Your task to perform on an android device: Empty the shopping cart on costco. Image 0: 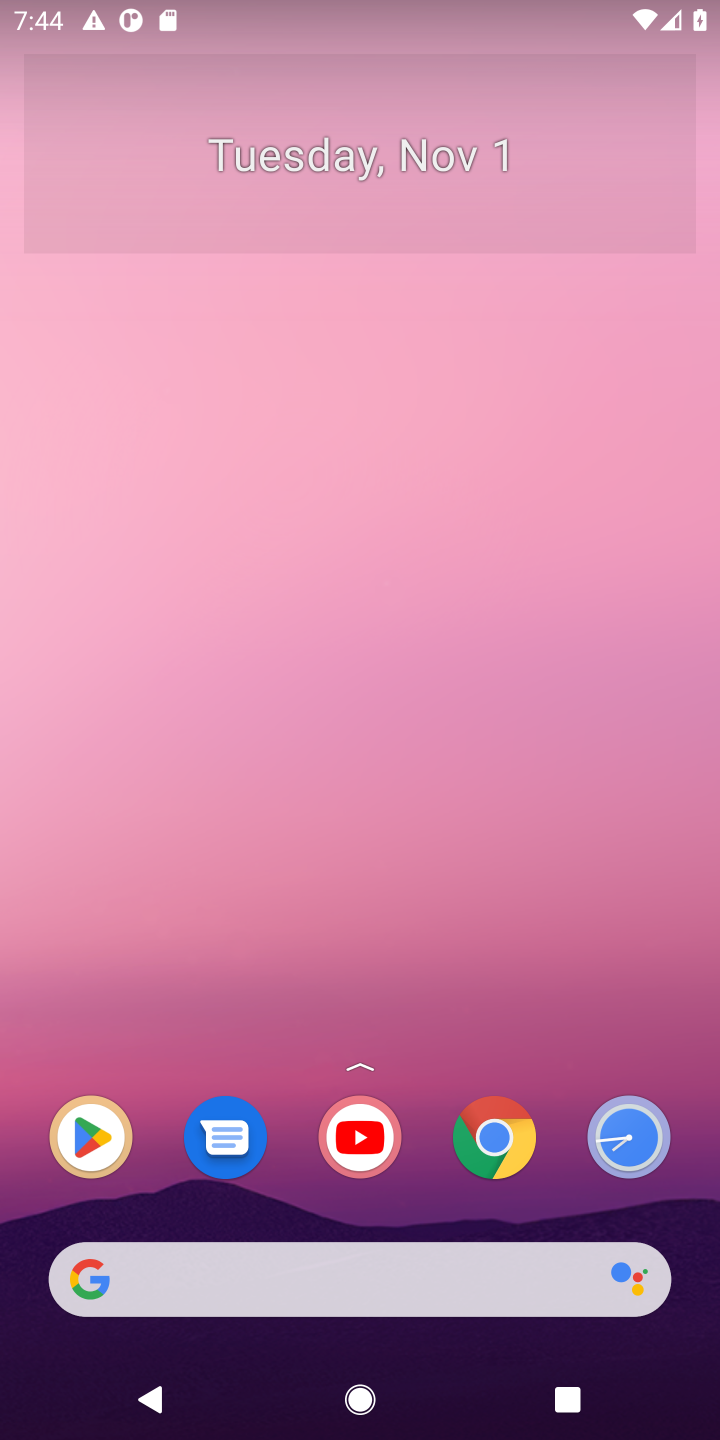
Step 0: click (517, 1138)
Your task to perform on an android device: Empty the shopping cart on costco. Image 1: 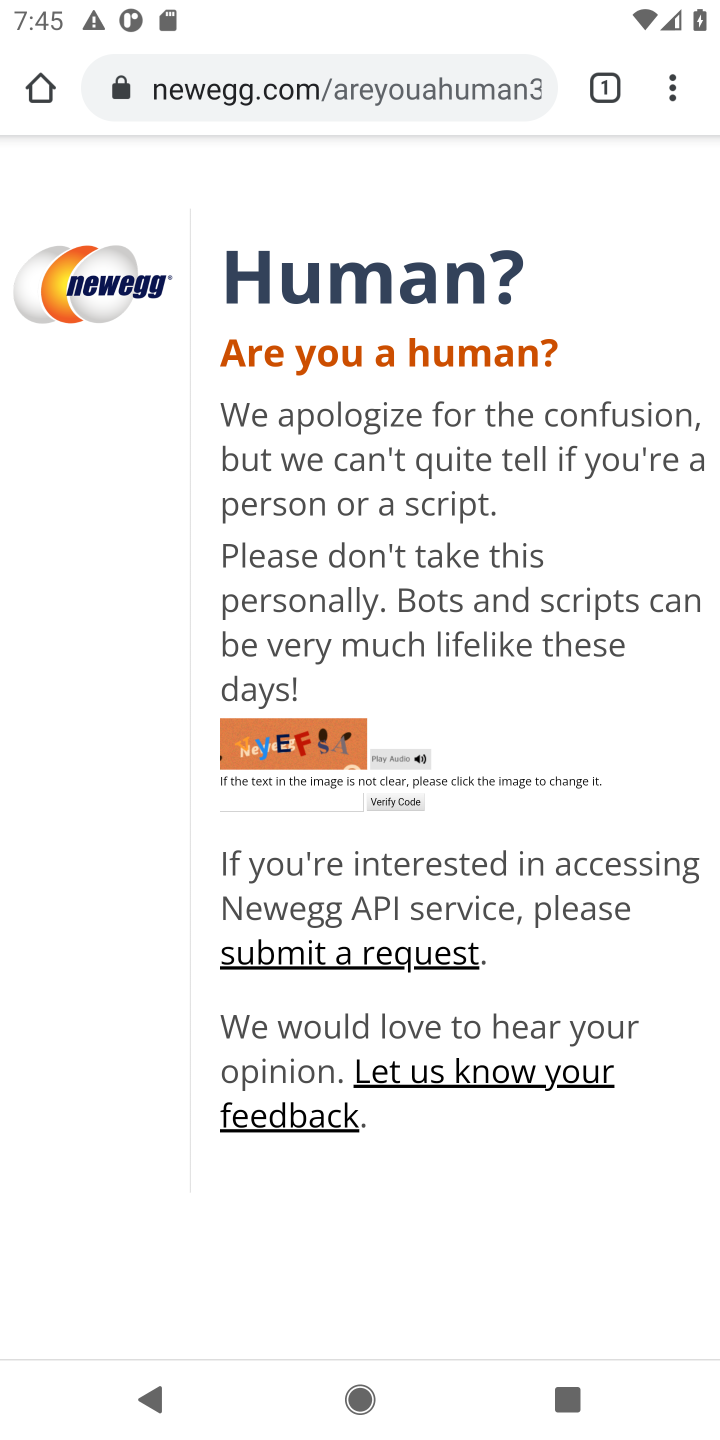
Step 1: click (412, 91)
Your task to perform on an android device: Empty the shopping cart on costco. Image 2: 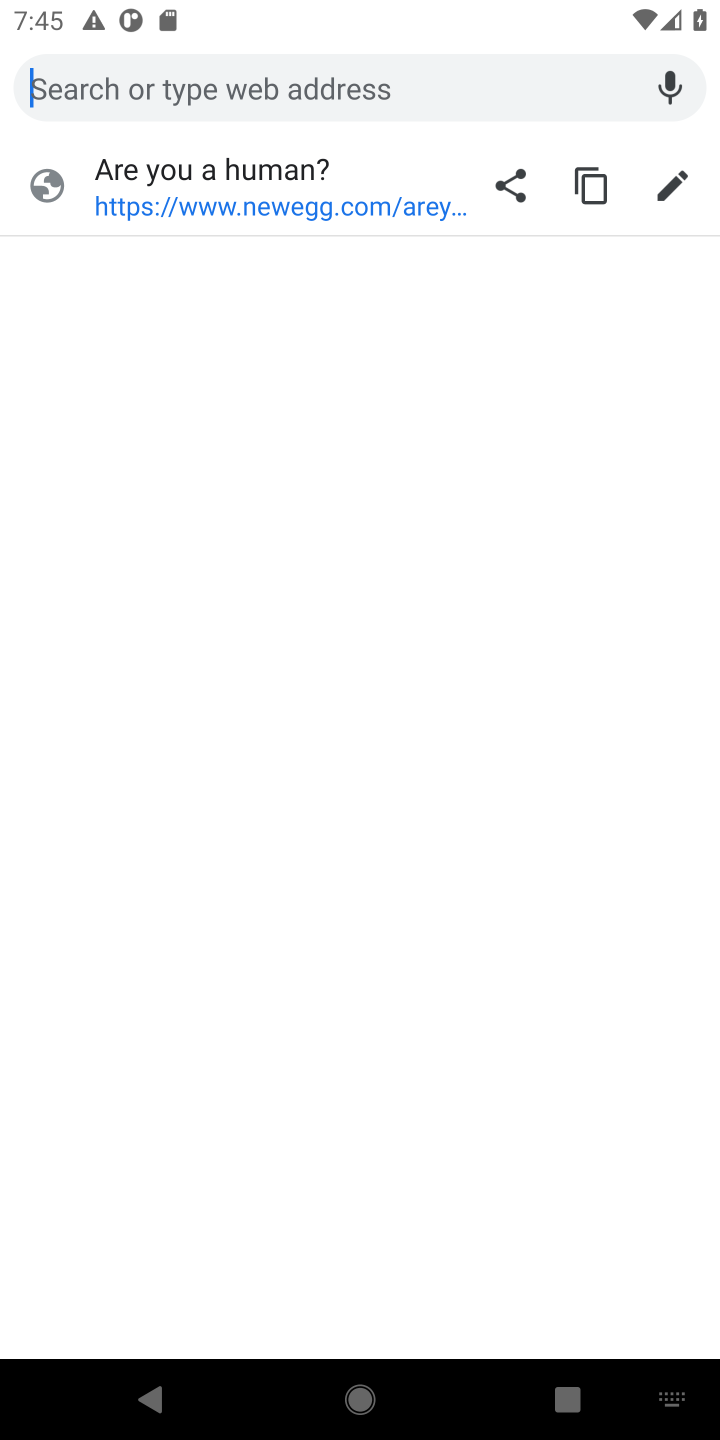
Step 2: type "costco"
Your task to perform on an android device: Empty the shopping cart on costco. Image 3: 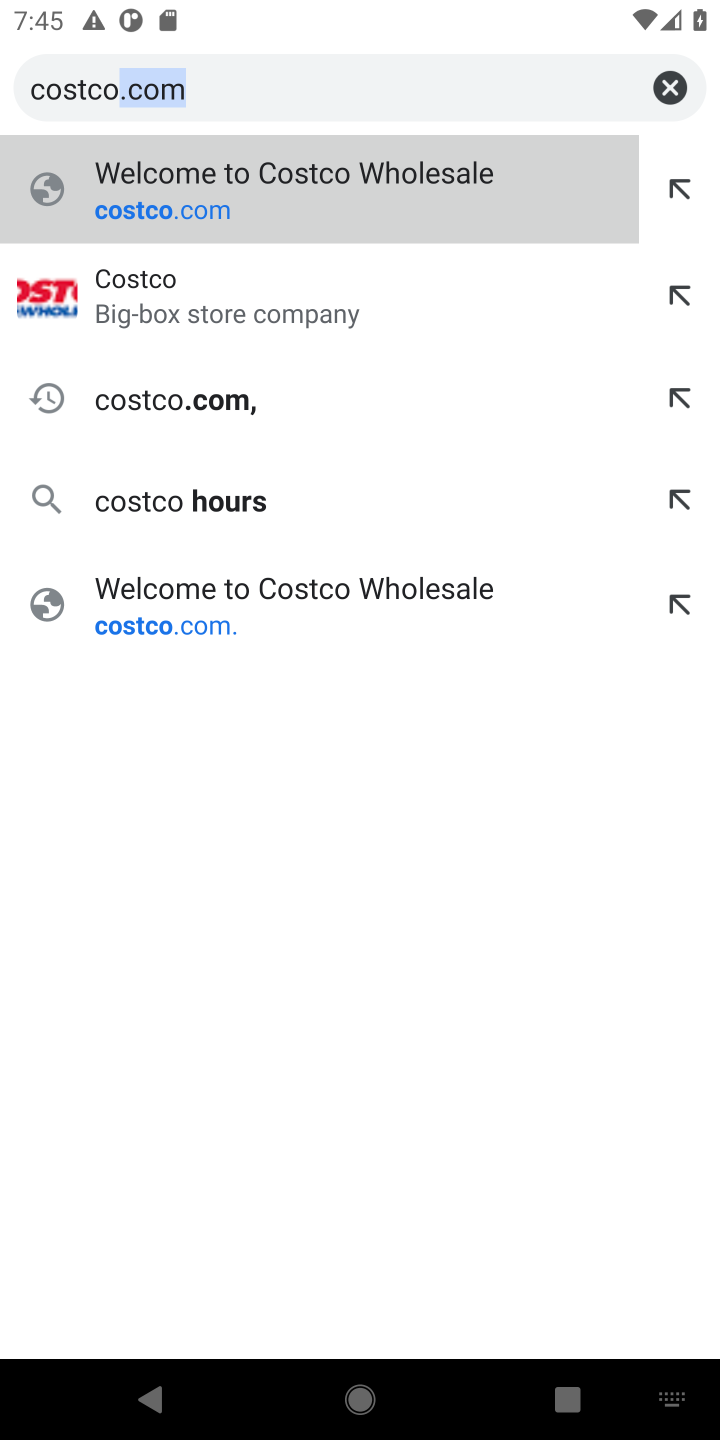
Step 3: click (371, 173)
Your task to perform on an android device: Empty the shopping cart on costco. Image 4: 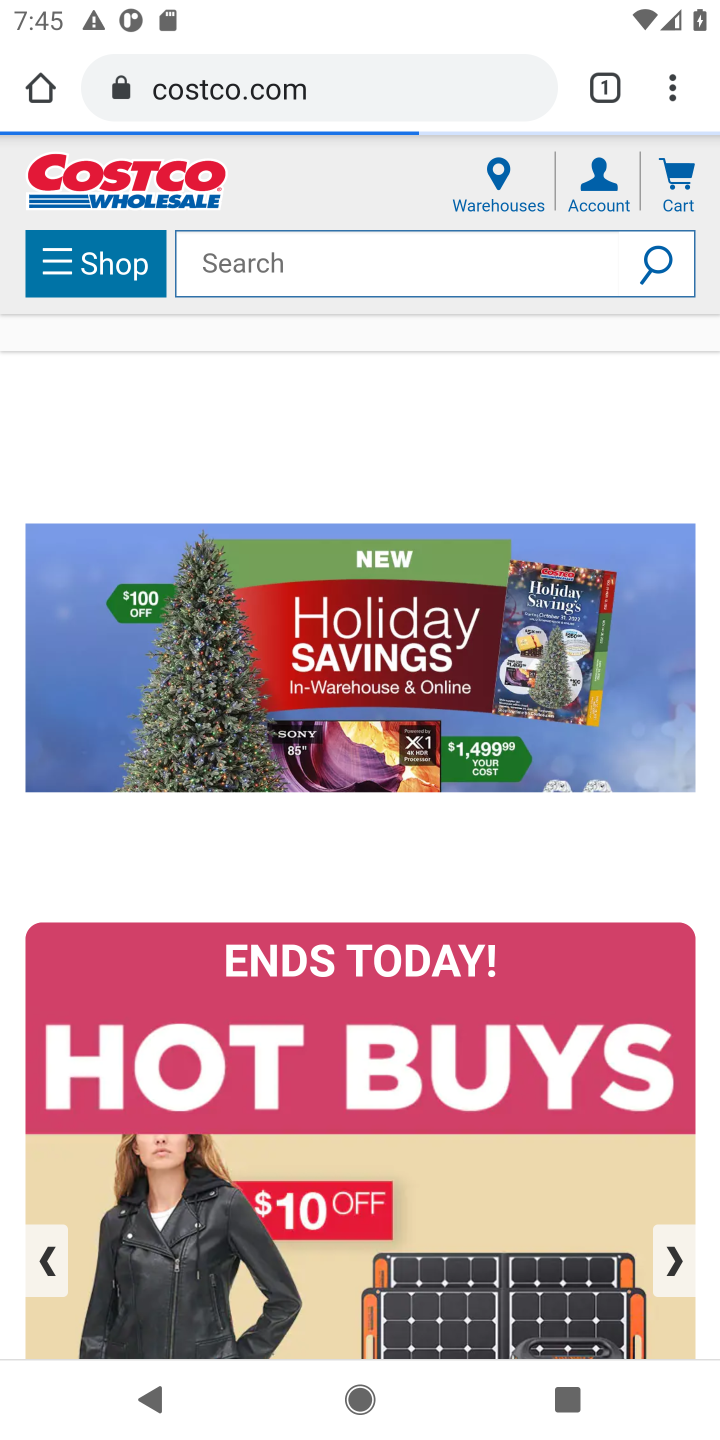
Step 4: click (675, 189)
Your task to perform on an android device: Empty the shopping cart on costco. Image 5: 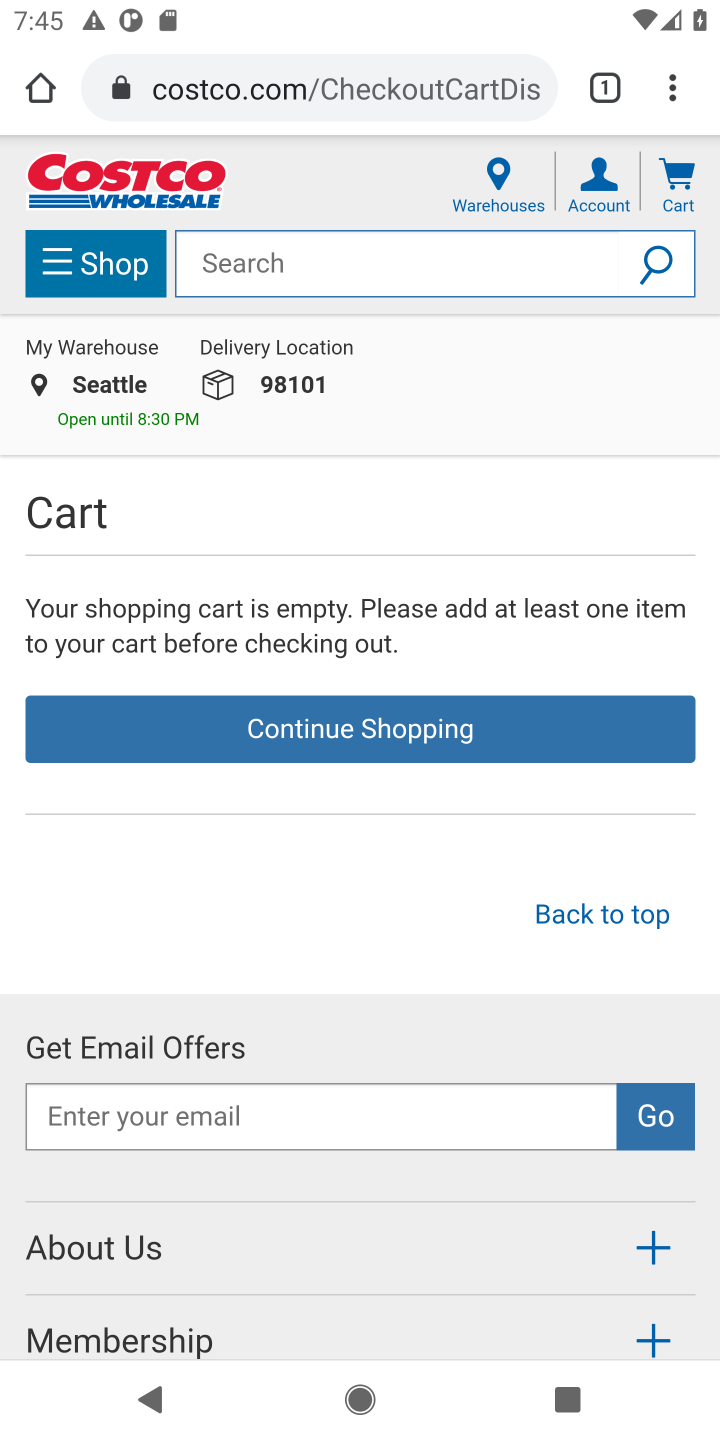
Step 5: task complete